Your task to perform on an android device: Search for flights from Helsinki to Seoul Image 0: 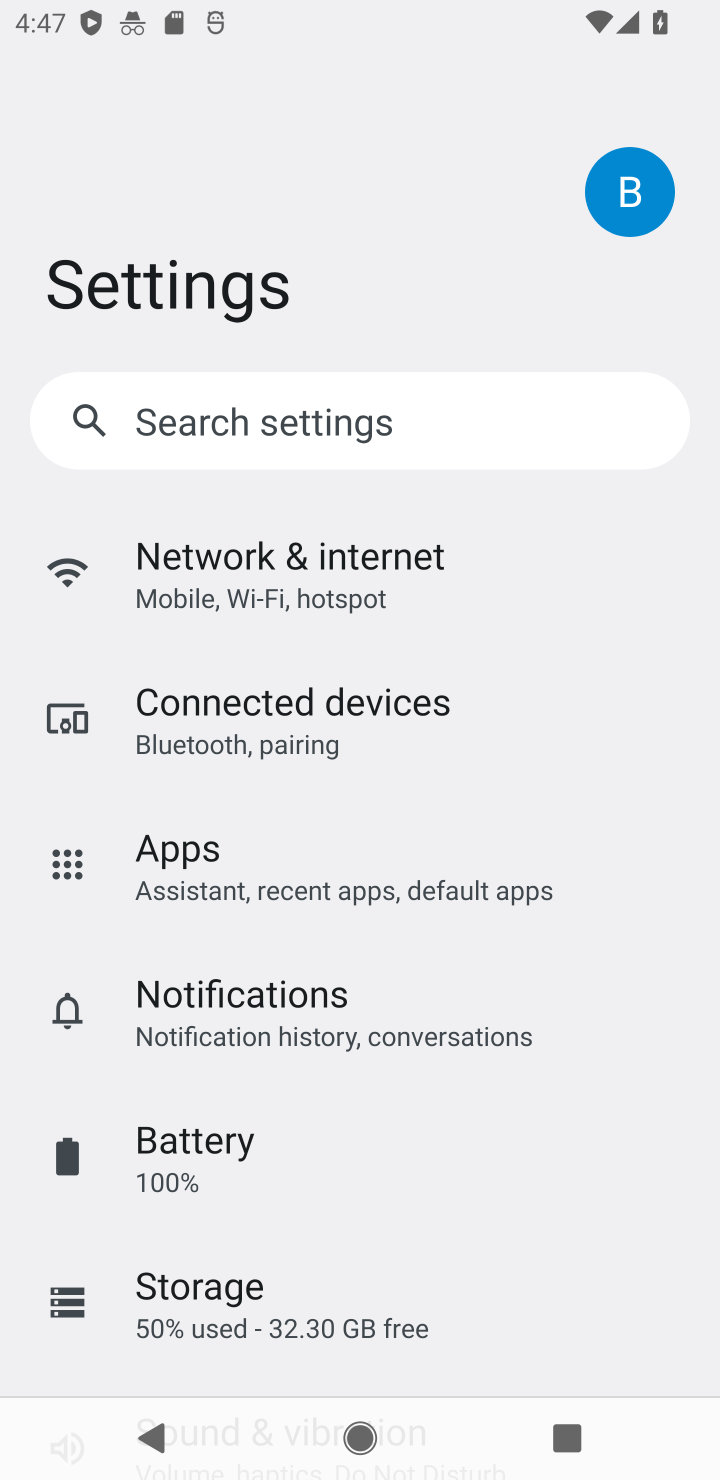
Step 0: press home button
Your task to perform on an android device: Search for flights from Helsinki to Seoul Image 1: 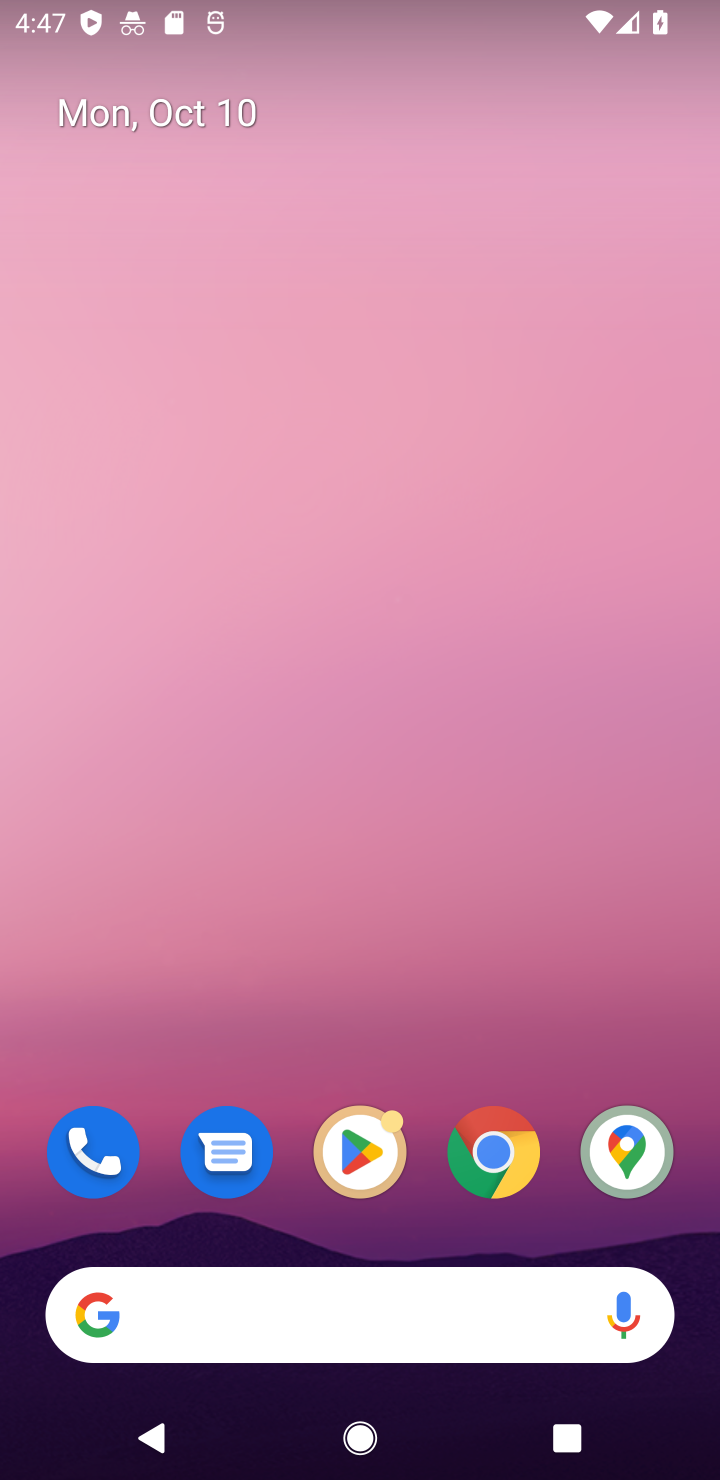
Step 1: click (494, 1149)
Your task to perform on an android device: Search for flights from Helsinki to Seoul Image 2: 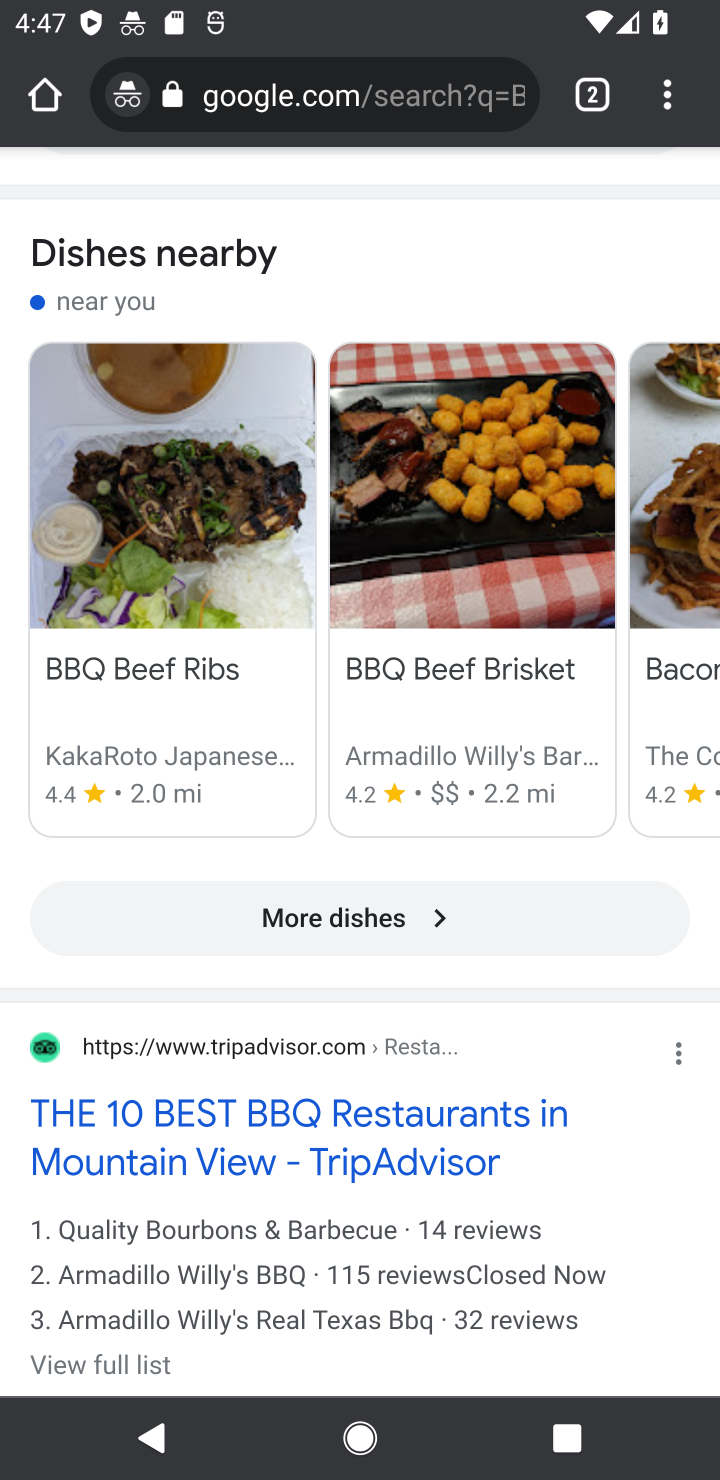
Step 2: click (403, 95)
Your task to perform on an android device: Search for flights from Helsinki to Seoul Image 3: 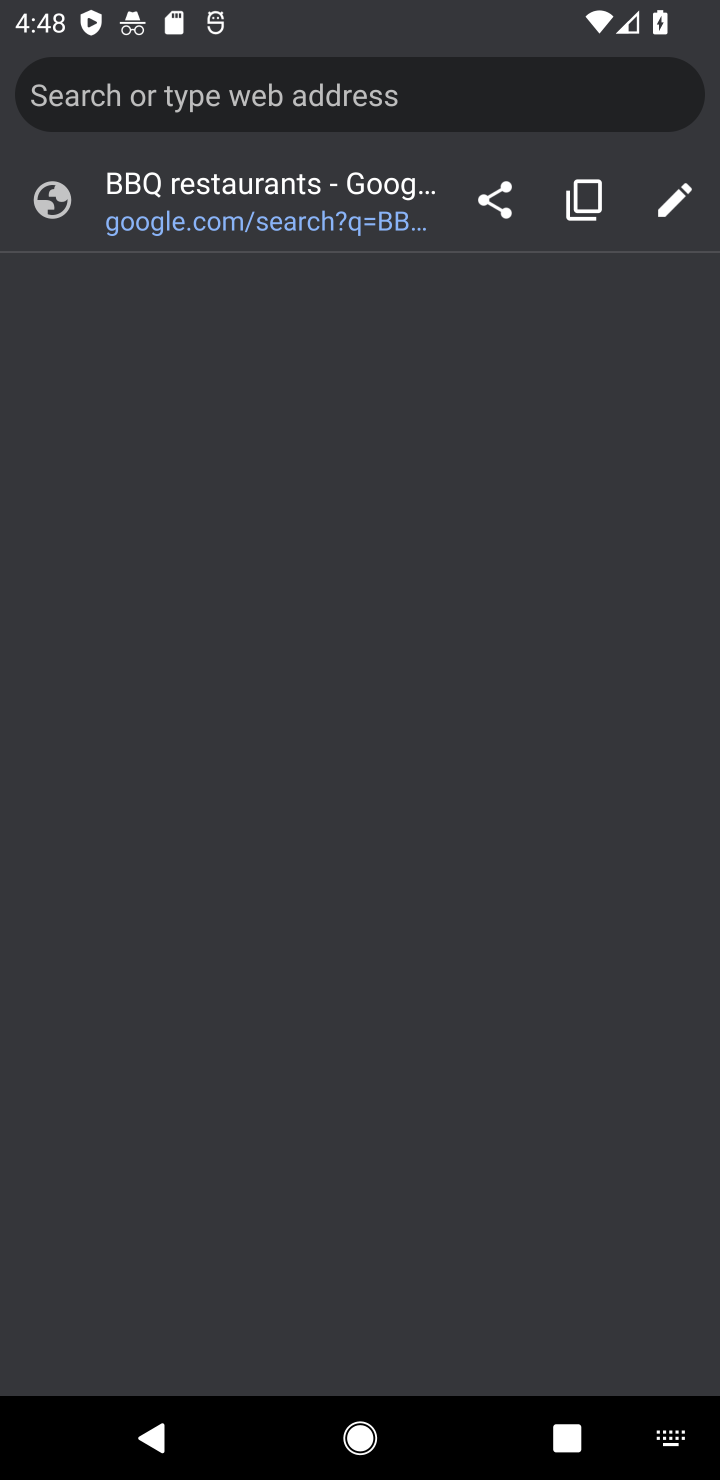
Step 3: type "flights from Helsinki to Seoul"
Your task to perform on an android device: Search for flights from Helsinki to Seoul Image 4: 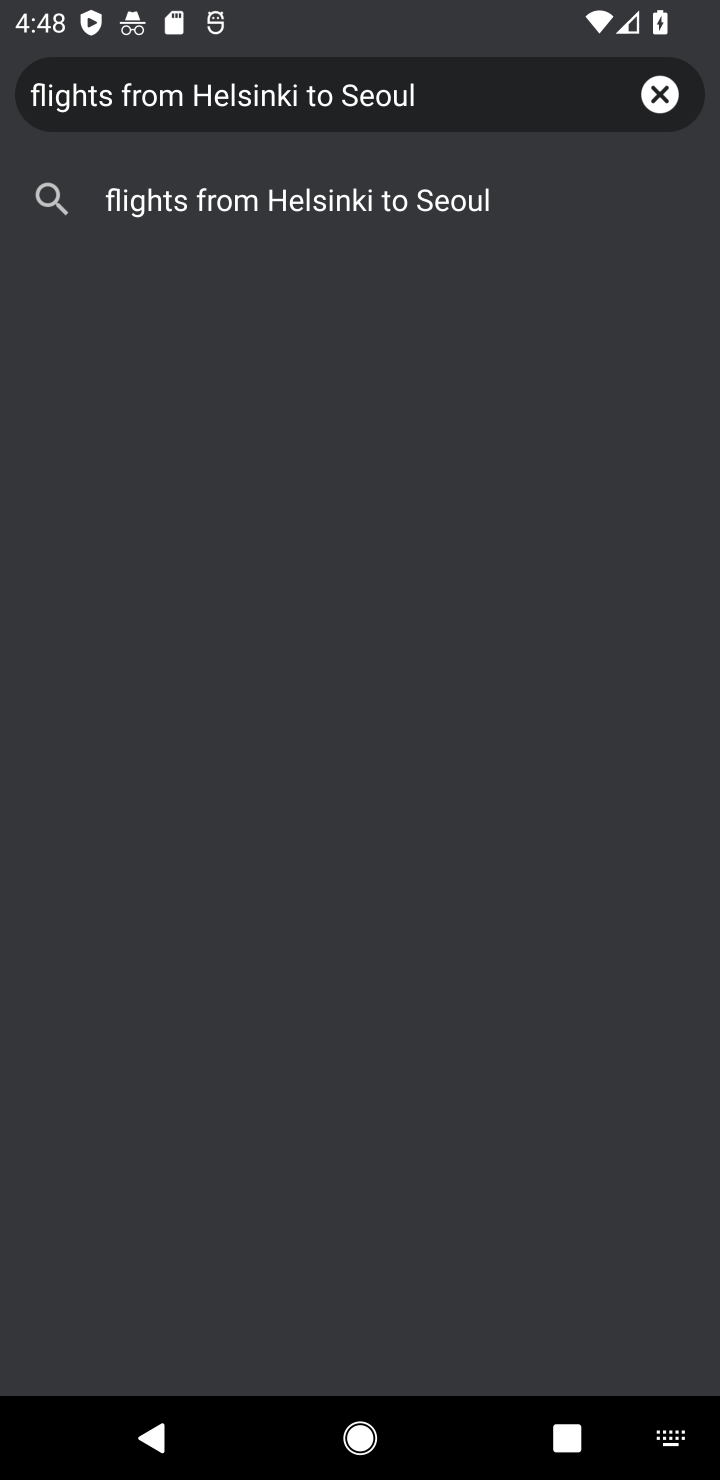
Step 4: click (317, 200)
Your task to perform on an android device: Search for flights from Helsinki to Seoul Image 5: 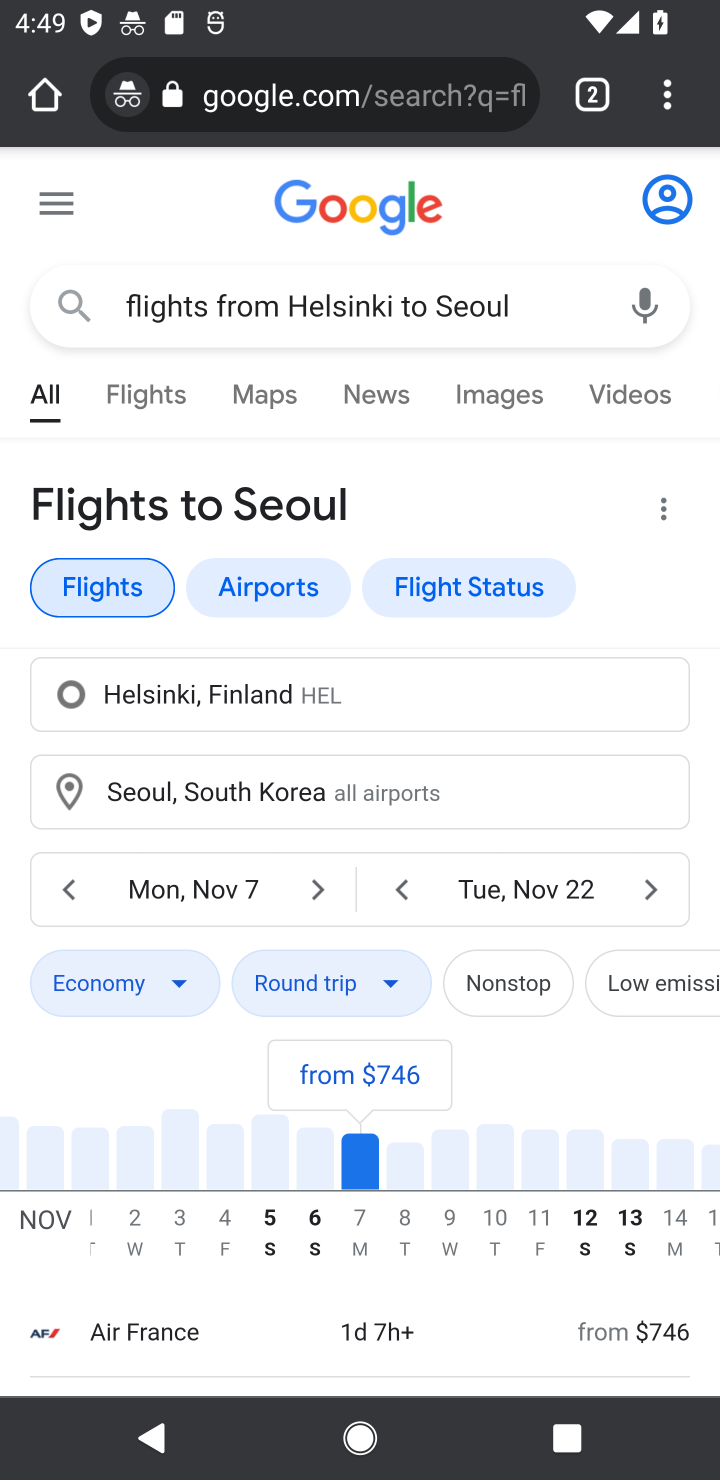
Step 5: task complete